Your task to perform on an android device: Open ESPN.com Image 0: 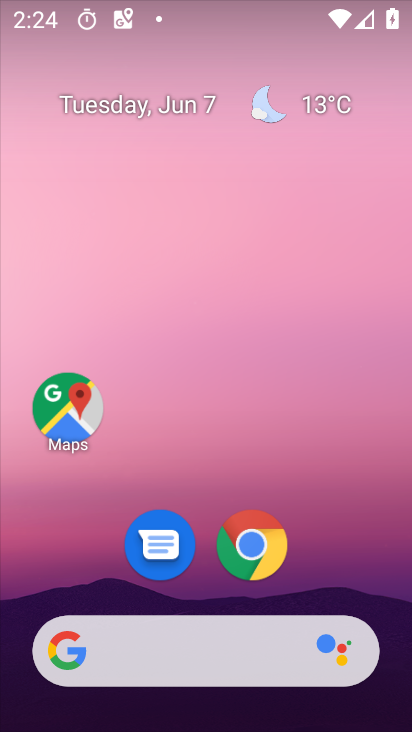
Step 0: click (253, 547)
Your task to perform on an android device: Open ESPN.com Image 1: 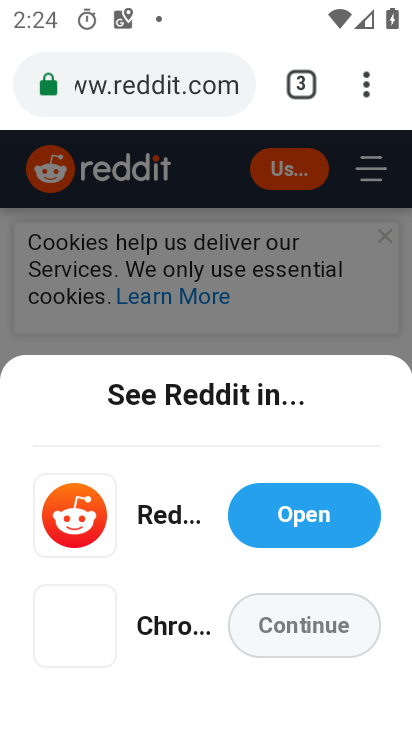
Step 1: click (300, 83)
Your task to perform on an android device: Open ESPN.com Image 2: 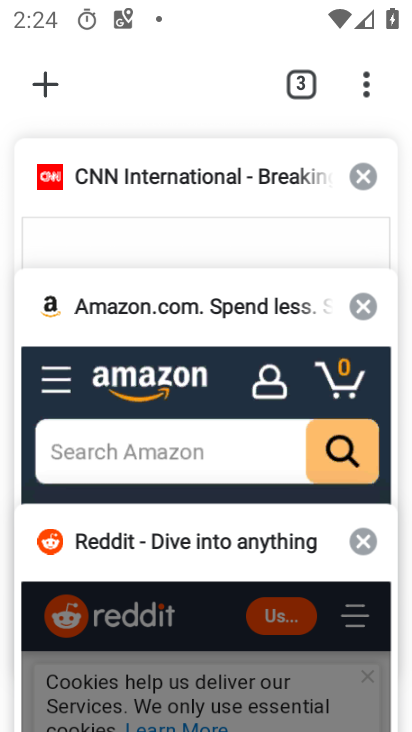
Step 2: click (32, 73)
Your task to perform on an android device: Open ESPN.com Image 3: 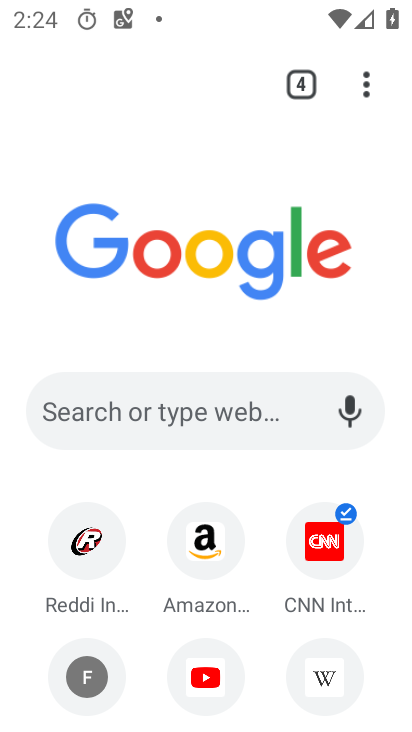
Step 3: click (194, 410)
Your task to perform on an android device: Open ESPN.com Image 4: 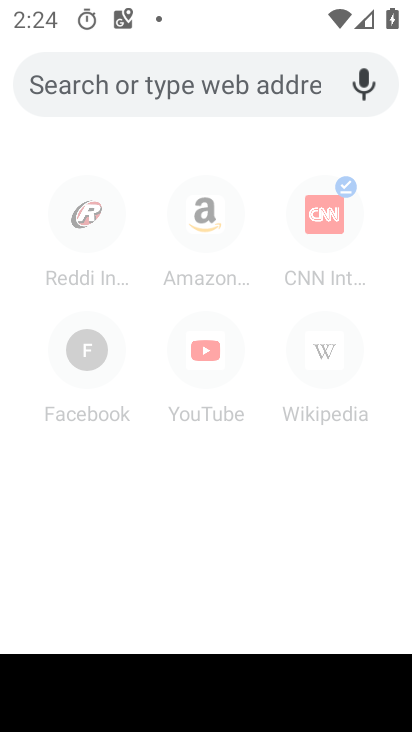
Step 4: type "ESPN.com"
Your task to perform on an android device: Open ESPN.com Image 5: 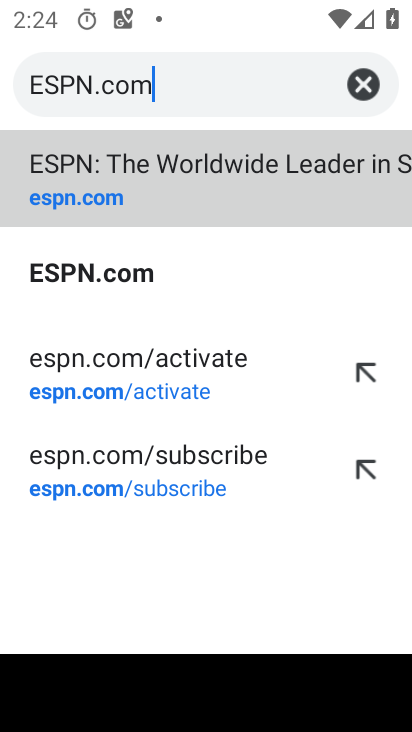
Step 5: click (174, 174)
Your task to perform on an android device: Open ESPN.com Image 6: 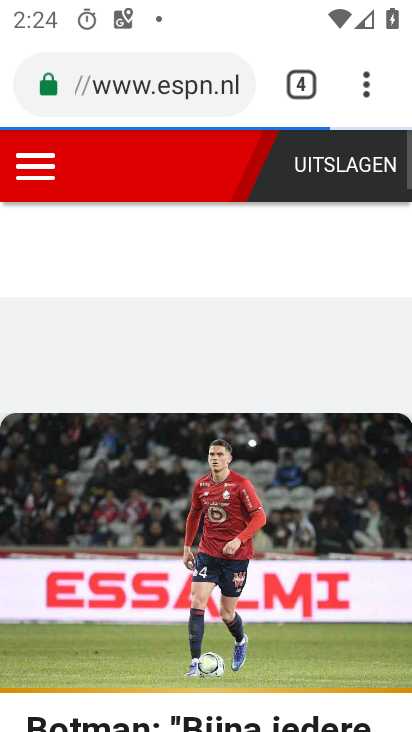
Step 6: task complete